Your task to perform on an android device: manage bookmarks in the chrome app Image 0: 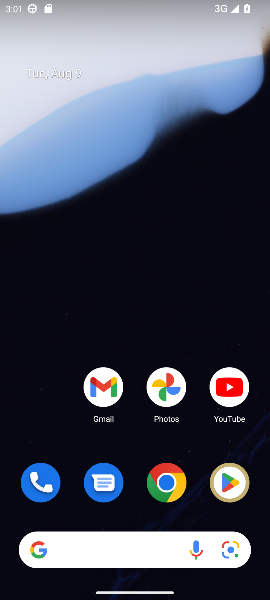
Step 0: click (164, 486)
Your task to perform on an android device: manage bookmarks in the chrome app Image 1: 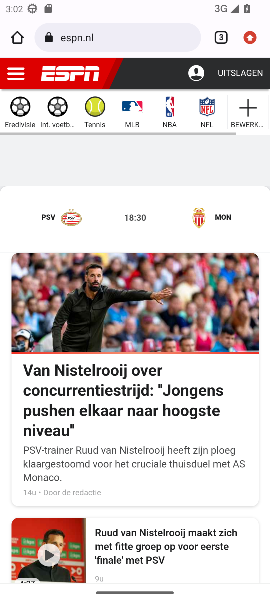
Step 1: click (244, 32)
Your task to perform on an android device: manage bookmarks in the chrome app Image 2: 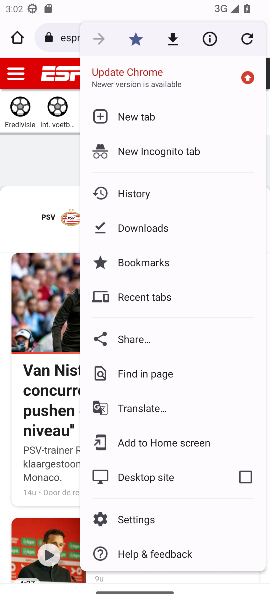
Step 2: click (185, 262)
Your task to perform on an android device: manage bookmarks in the chrome app Image 3: 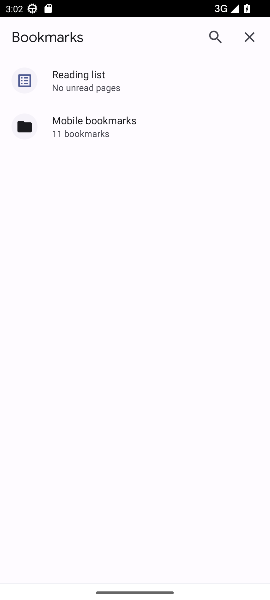
Step 3: click (127, 123)
Your task to perform on an android device: manage bookmarks in the chrome app Image 4: 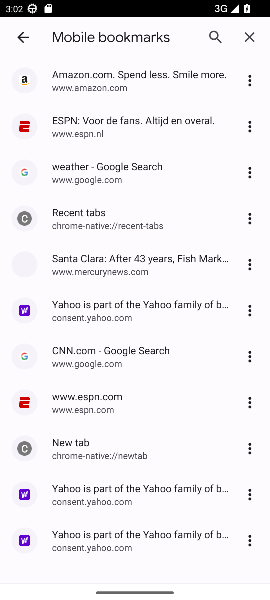
Step 4: click (245, 308)
Your task to perform on an android device: manage bookmarks in the chrome app Image 5: 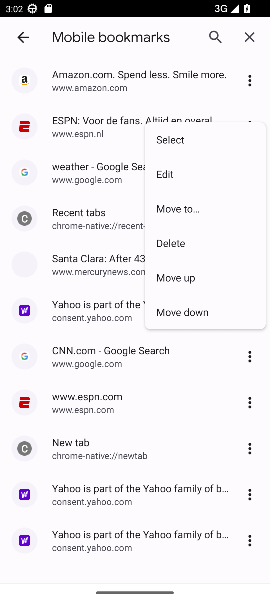
Step 5: click (175, 249)
Your task to perform on an android device: manage bookmarks in the chrome app Image 6: 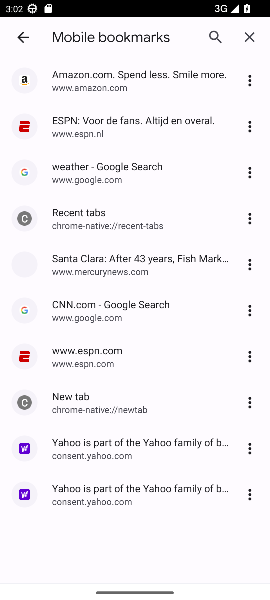
Step 6: task complete